Your task to perform on an android device: Show me recent news Image 0: 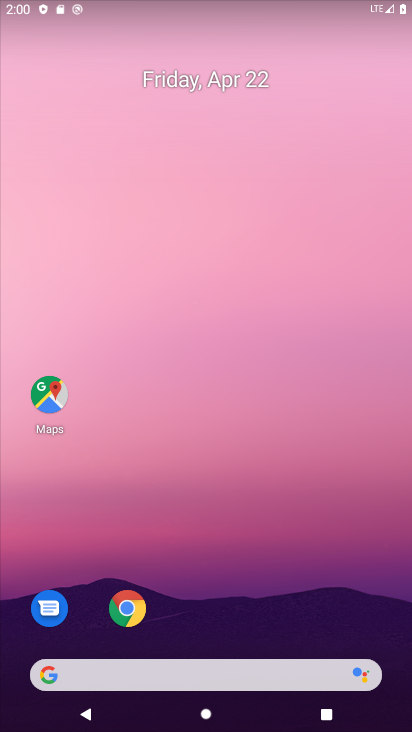
Step 0: drag from (253, 660) to (313, 221)
Your task to perform on an android device: Show me recent news Image 1: 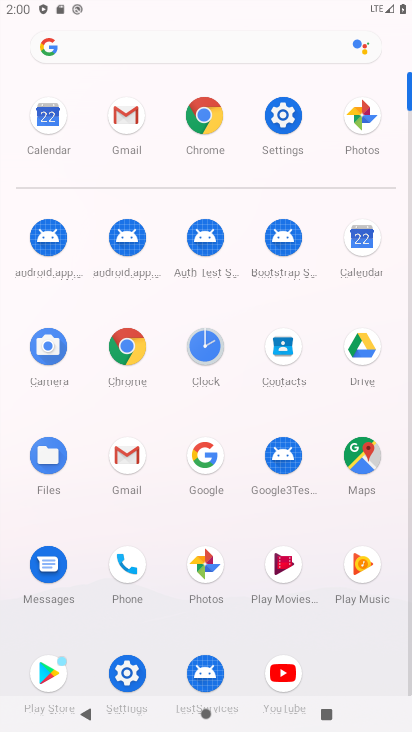
Step 1: click (188, 51)
Your task to perform on an android device: Show me recent news Image 2: 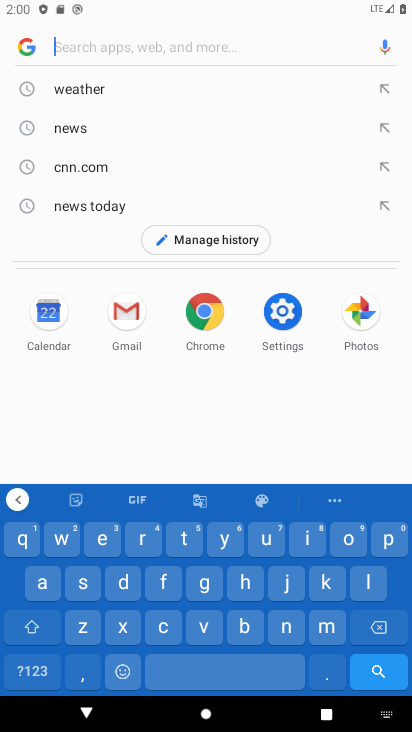
Step 2: click (135, 537)
Your task to perform on an android device: Show me recent news Image 3: 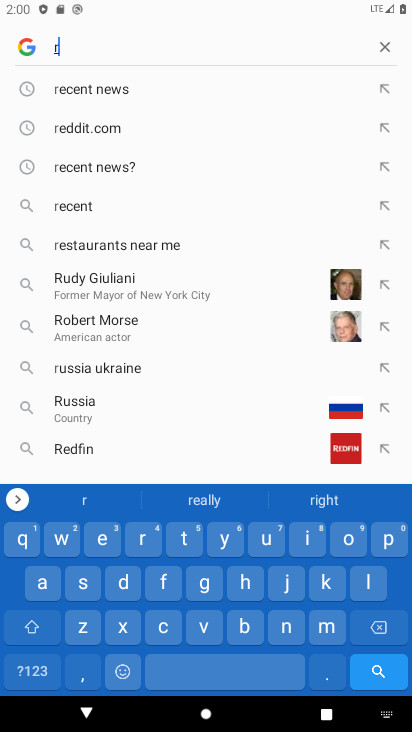
Step 3: click (127, 89)
Your task to perform on an android device: Show me recent news Image 4: 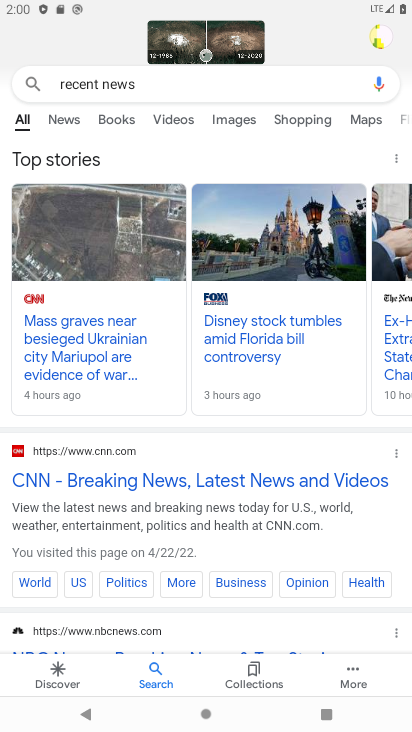
Step 4: task complete